Your task to perform on an android device: check android version Image 0: 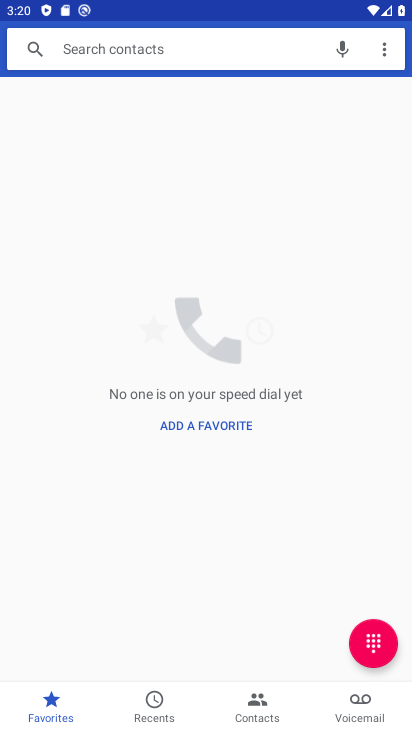
Step 0: press home button
Your task to perform on an android device: check android version Image 1: 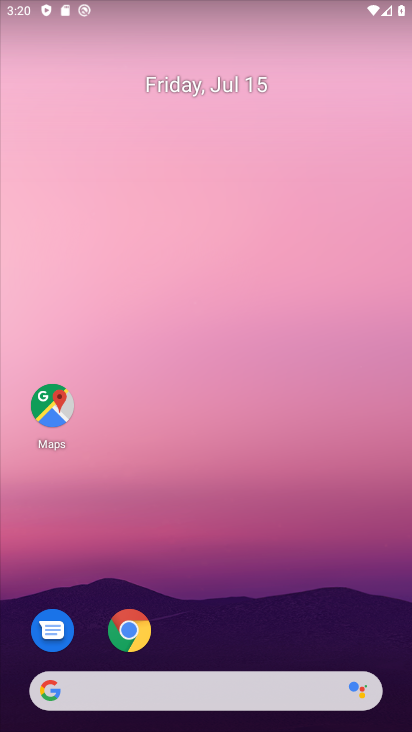
Step 1: drag from (229, 647) to (218, 208)
Your task to perform on an android device: check android version Image 2: 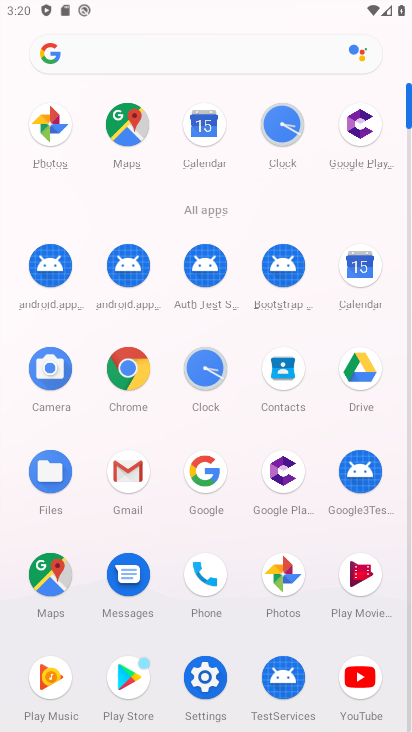
Step 2: click (197, 687)
Your task to perform on an android device: check android version Image 3: 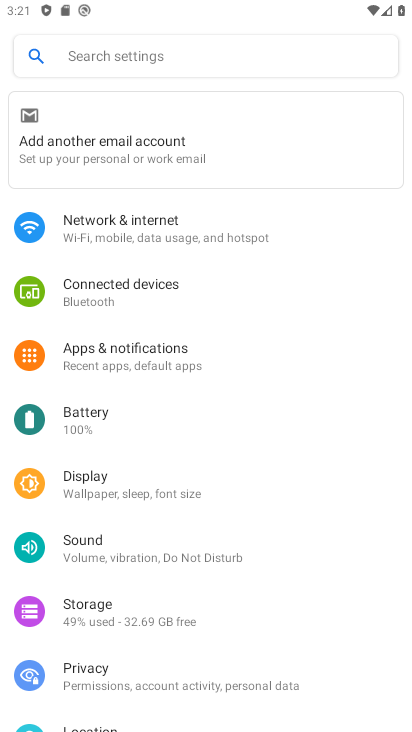
Step 3: drag from (227, 653) to (214, 355)
Your task to perform on an android device: check android version Image 4: 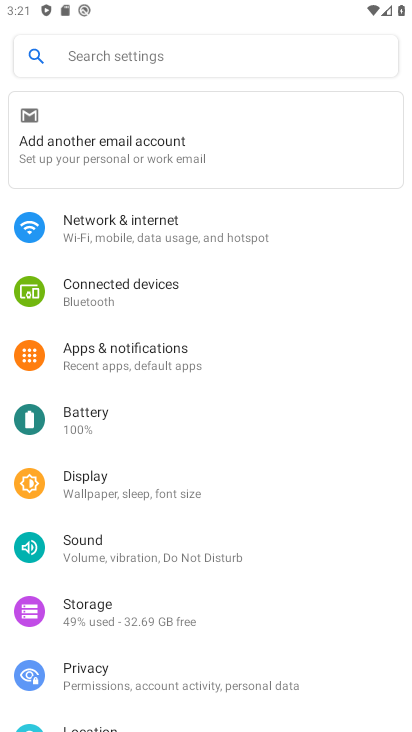
Step 4: drag from (163, 625) to (131, 163)
Your task to perform on an android device: check android version Image 5: 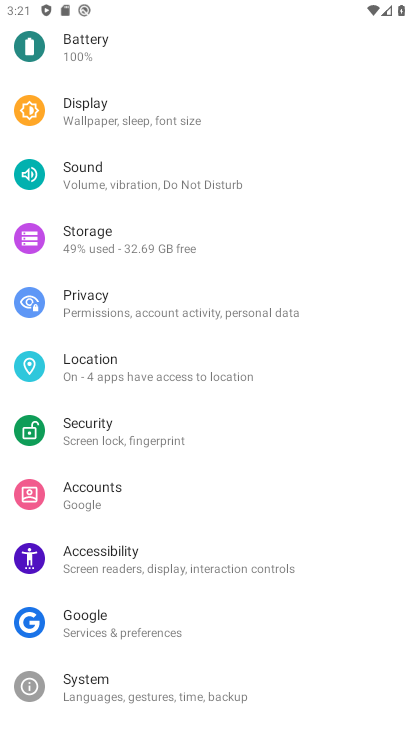
Step 5: drag from (114, 298) to (115, 222)
Your task to perform on an android device: check android version Image 6: 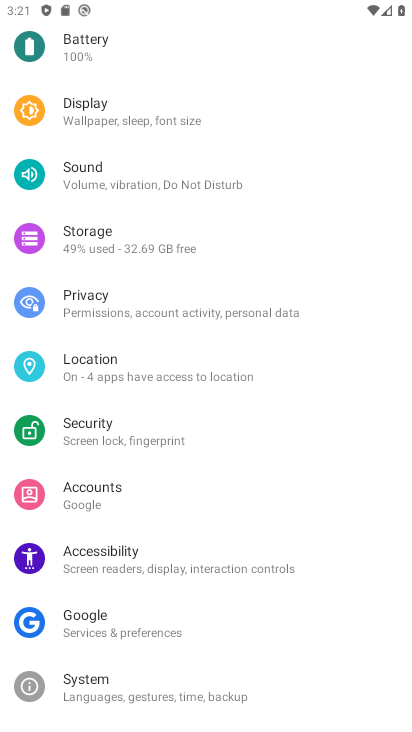
Step 6: drag from (133, 545) to (137, 27)
Your task to perform on an android device: check android version Image 7: 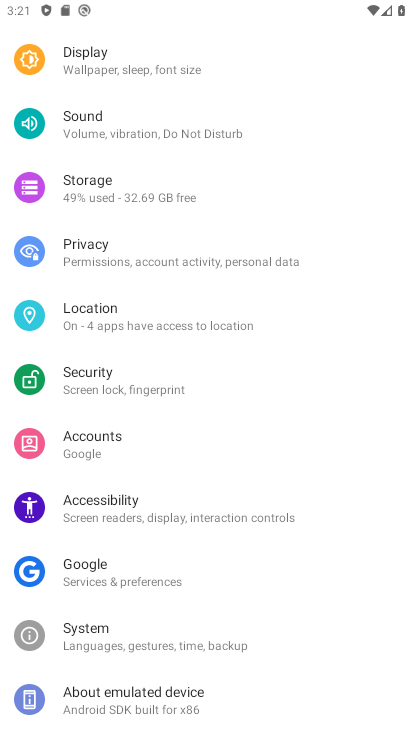
Step 7: click (161, 684)
Your task to perform on an android device: check android version Image 8: 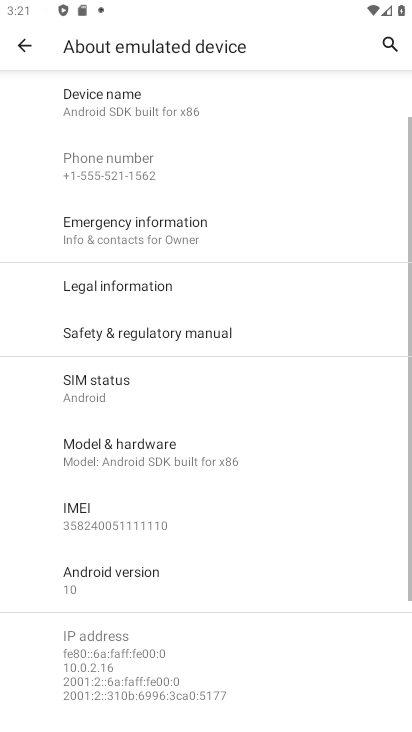
Step 8: click (118, 581)
Your task to perform on an android device: check android version Image 9: 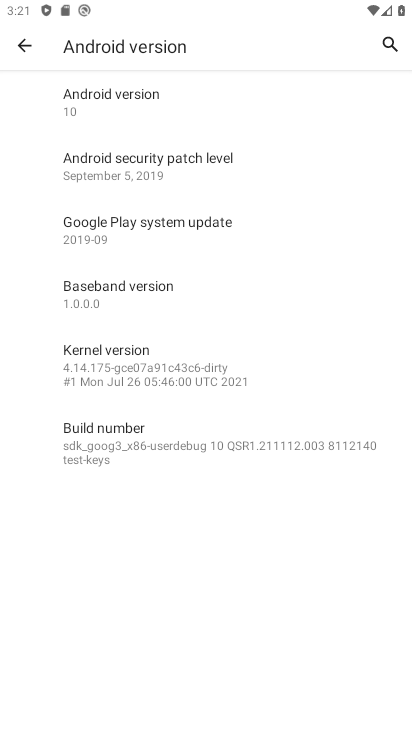
Step 9: click (163, 89)
Your task to perform on an android device: check android version Image 10: 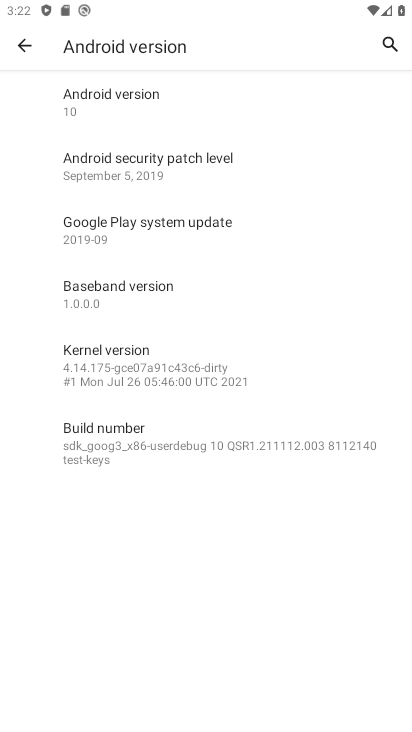
Step 10: task complete